Your task to perform on an android device: turn off airplane mode Image 0: 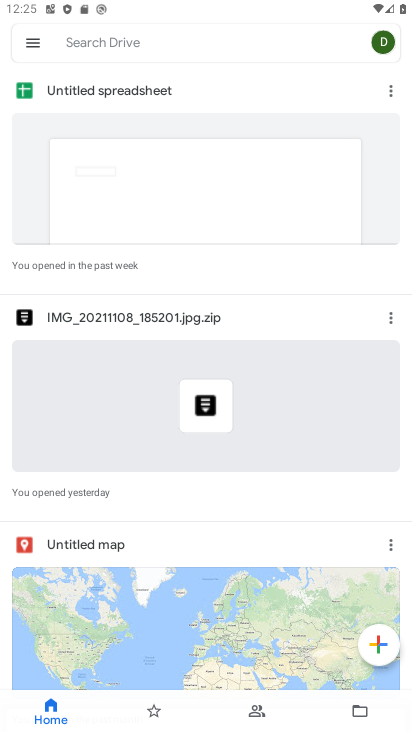
Step 0: press home button
Your task to perform on an android device: turn off airplane mode Image 1: 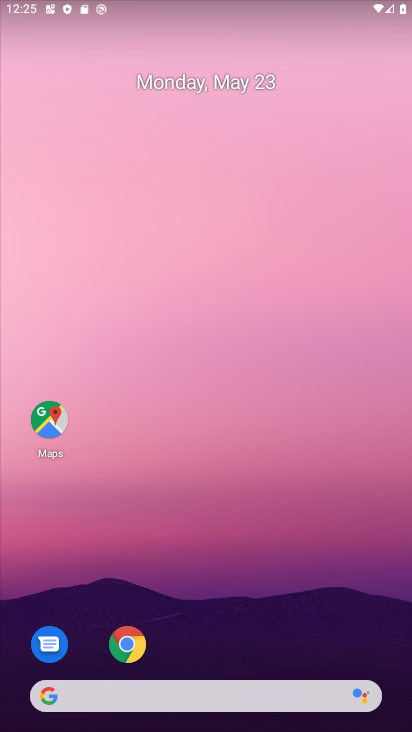
Step 1: drag from (265, 642) to (279, 83)
Your task to perform on an android device: turn off airplane mode Image 2: 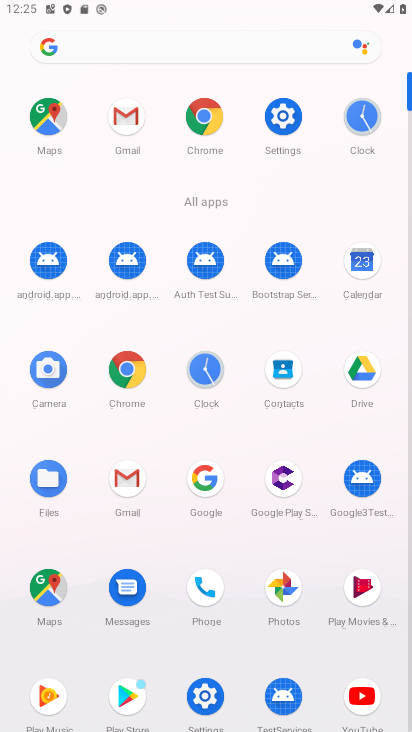
Step 2: click (286, 118)
Your task to perform on an android device: turn off airplane mode Image 3: 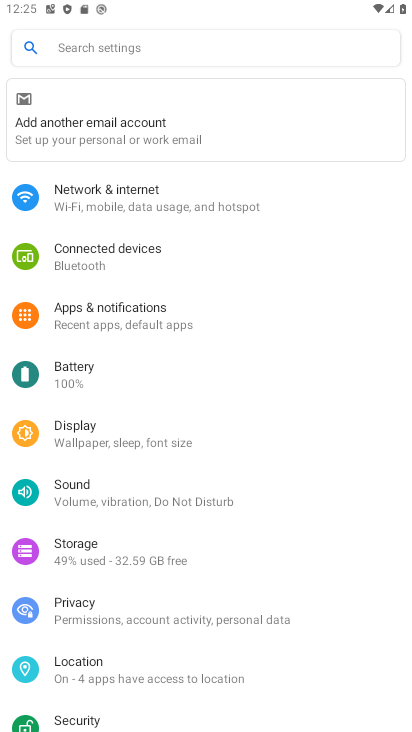
Step 3: click (169, 201)
Your task to perform on an android device: turn off airplane mode Image 4: 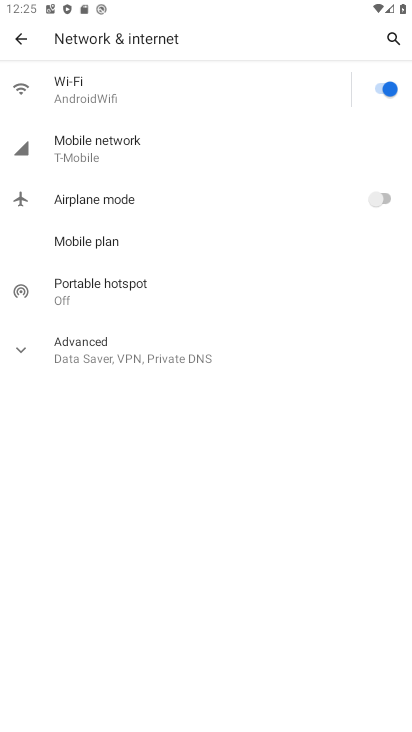
Step 4: task complete